Your task to perform on an android device: Do I have any events this weekend? Image 0: 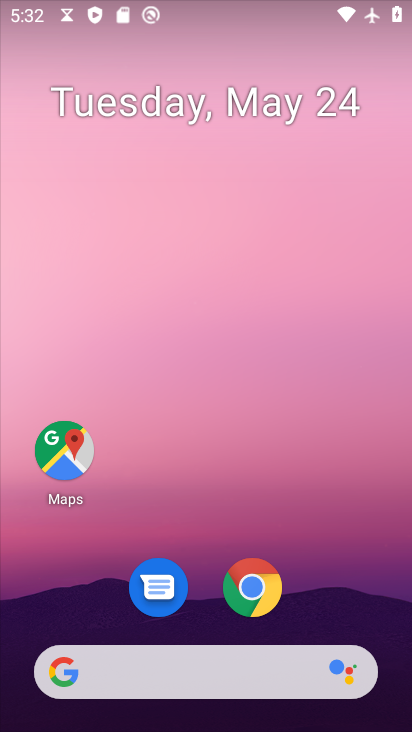
Step 0: drag from (317, 544) to (203, 22)
Your task to perform on an android device: Do I have any events this weekend? Image 1: 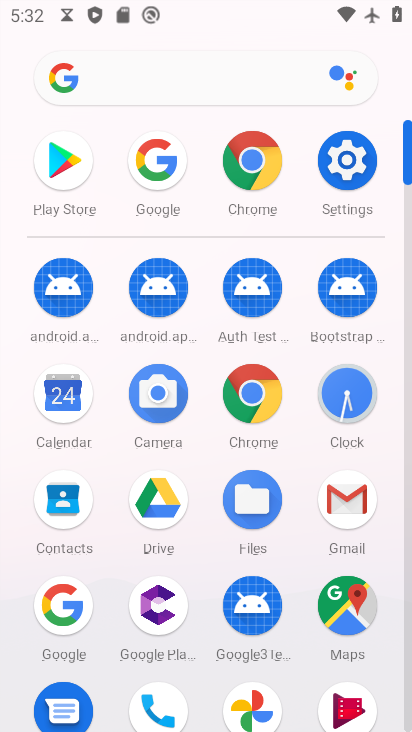
Step 1: click (61, 390)
Your task to perform on an android device: Do I have any events this weekend? Image 2: 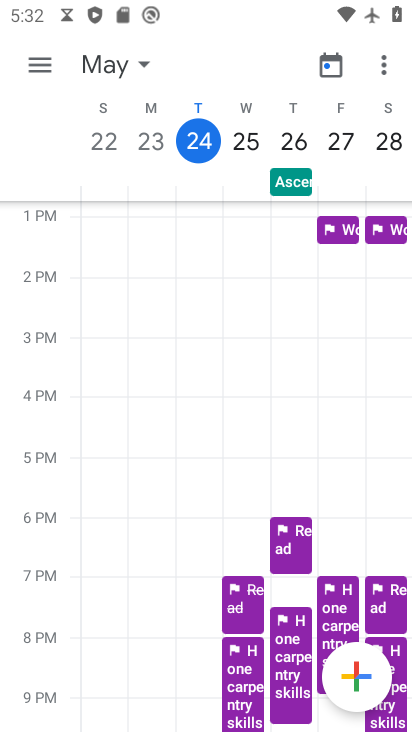
Step 2: task complete